Your task to perform on an android device: toggle notification dots Image 0: 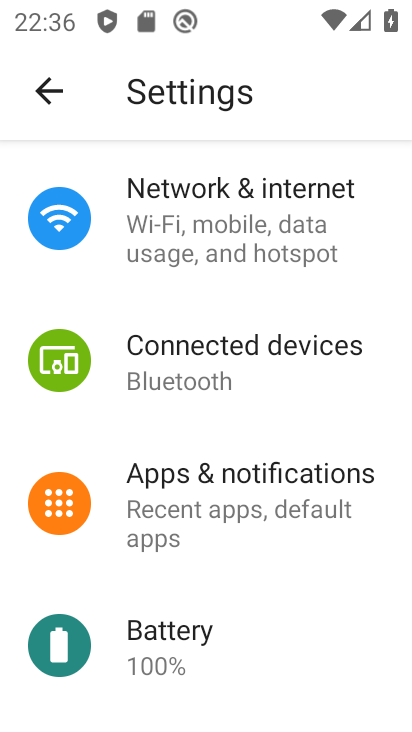
Step 0: click (287, 531)
Your task to perform on an android device: toggle notification dots Image 1: 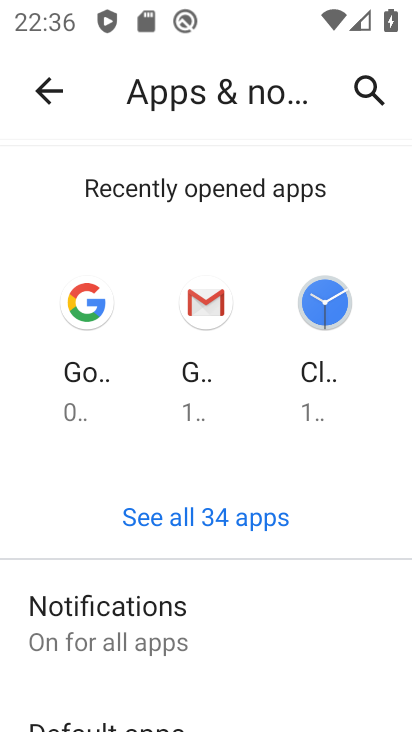
Step 1: drag from (221, 621) to (254, 342)
Your task to perform on an android device: toggle notification dots Image 2: 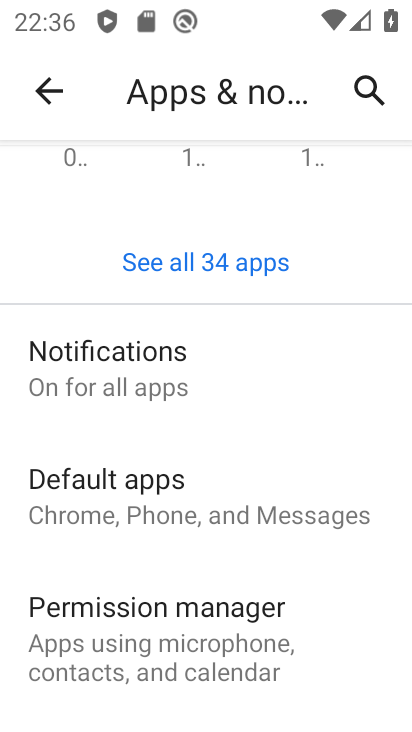
Step 2: click (173, 375)
Your task to perform on an android device: toggle notification dots Image 3: 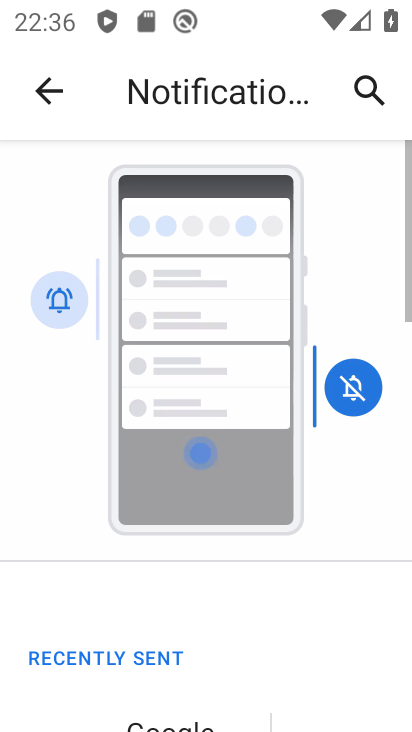
Step 3: drag from (223, 566) to (253, 122)
Your task to perform on an android device: toggle notification dots Image 4: 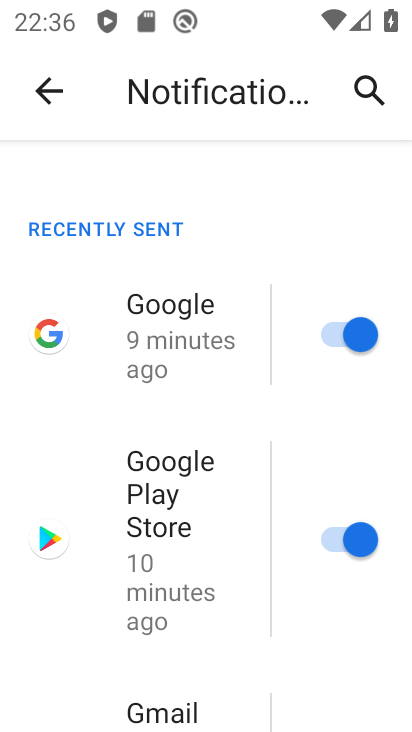
Step 4: drag from (199, 597) to (216, 137)
Your task to perform on an android device: toggle notification dots Image 5: 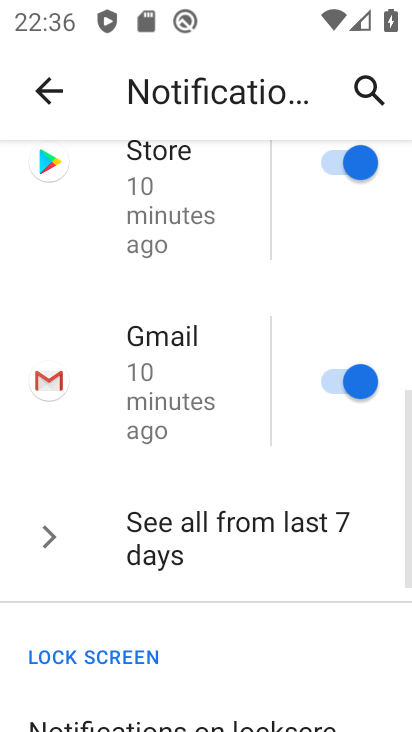
Step 5: drag from (188, 660) to (179, 183)
Your task to perform on an android device: toggle notification dots Image 6: 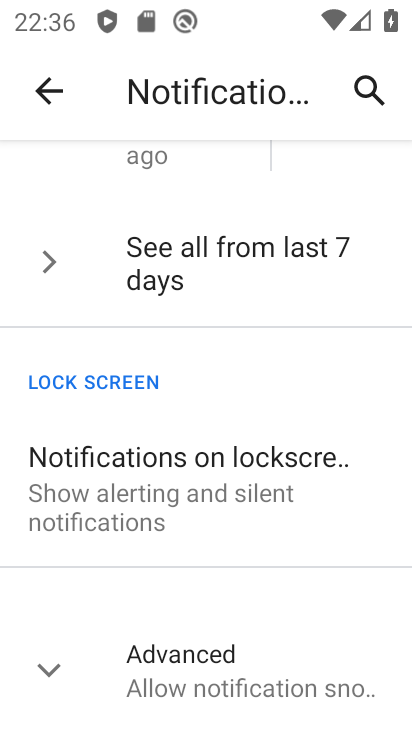
Step 6: click (230, 645)
Your task to perform on an android device: toggle notification dots Image 7: 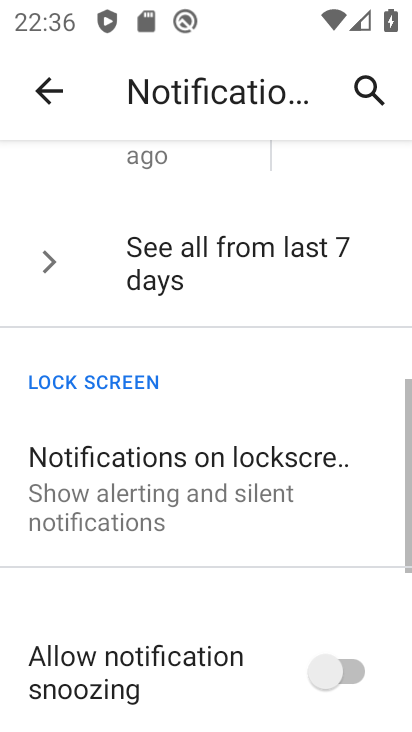
Step 7: drag from (267, 607) to (229, 144)
Your task to perform on an android device: toggle notification dots Image 8: 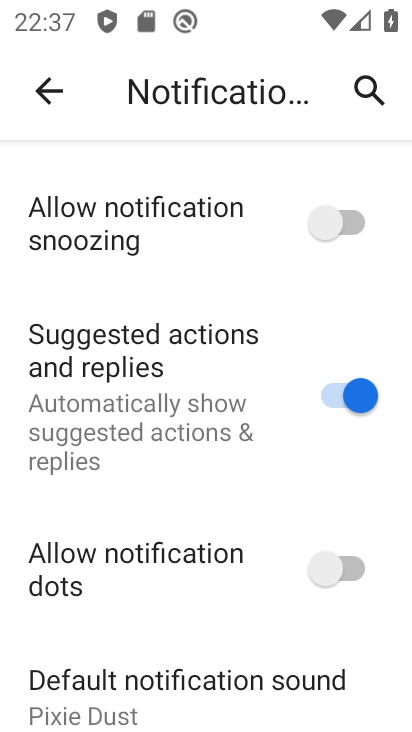
Step 8: click (305, 597)
Your task to perform on an android device: toggle notification dots Image 9: 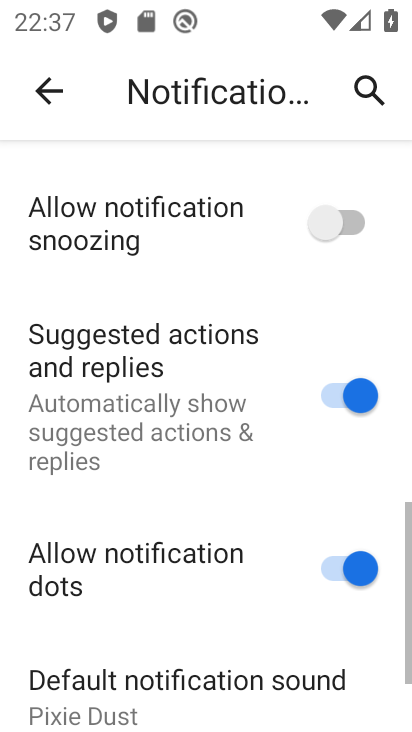
Step 9: task complete